Your task to perform on an android device: allow notifications from all sites in the chrome app Image 0: 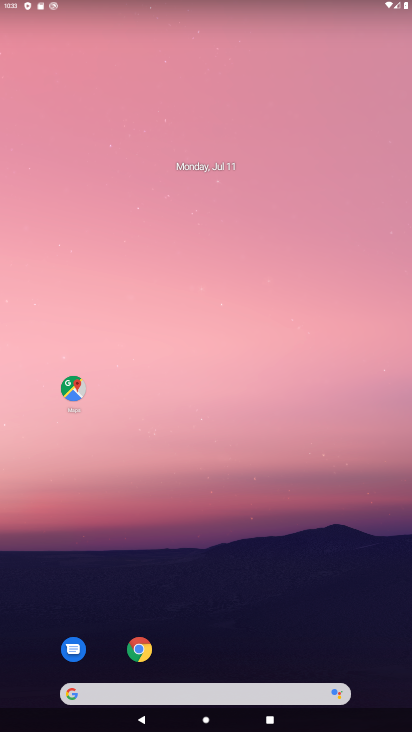
Step 0: drag from (314, 583) to (312, 102)
Your task to perform on an android device: allow notifications from all sites in the chrome app Image 1: 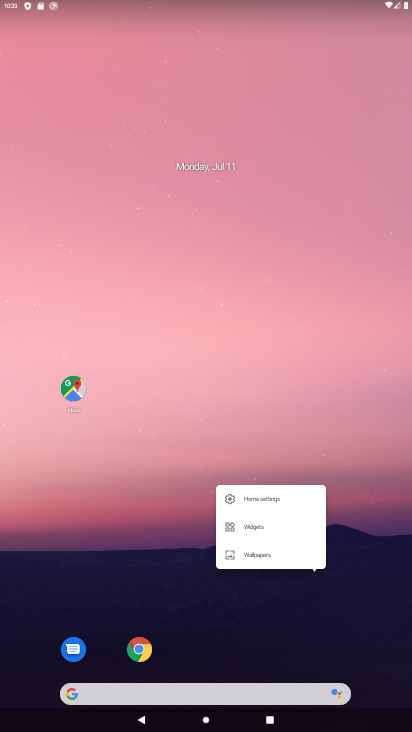
Step 1: click (342, 467)
Your task to perform on an android device: allow notifications from all sites in the chrome app Image 2: 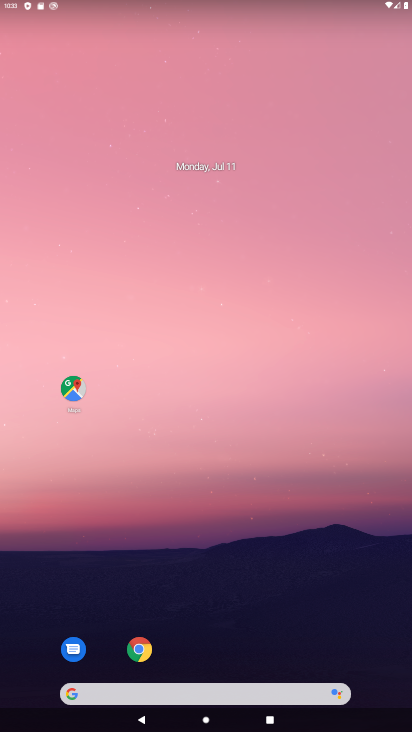
Step 2: drag from (242, 622) to (297, 12)
Your task to perform on an android device: allow notifications from all sites in the chrome app Image 3: 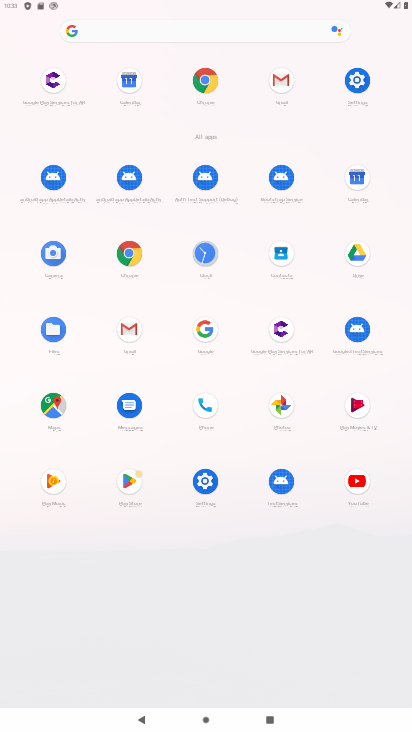
Step 3: click (132, 250)
Your task to perform on an android device: allow notifications from all sites in the chrome app Image 4: 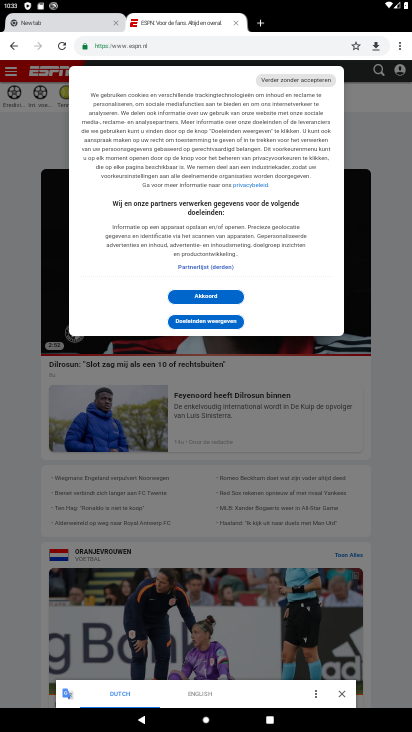
Step 4: drag from (402, 39) to (298, 306)
Your task to perform on an android device: allow notifications from all sites in the chrome app Image 5: 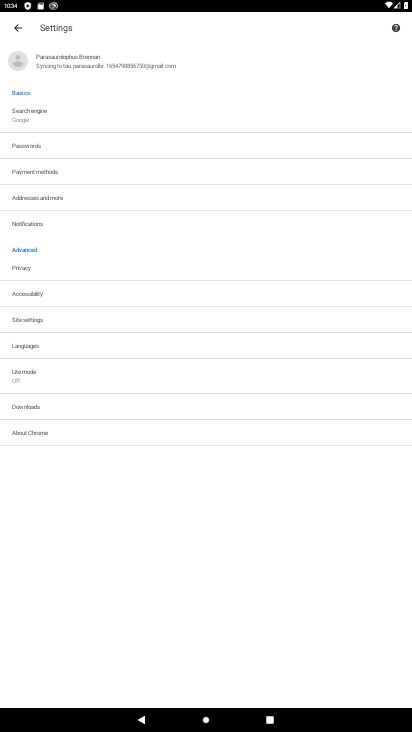
Step 5: click (39, 226)
Your task to perform on an android device: allow notifications from all sites in the chrome app Image 6: 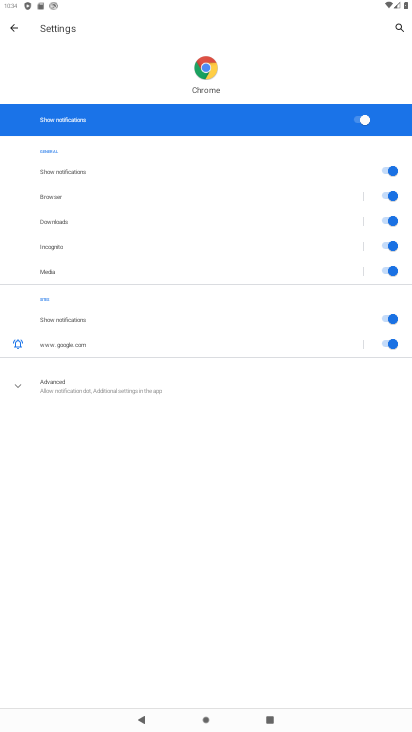
Step 6: task complete